Your task to perform on an android device: Go to location settings Image 0: 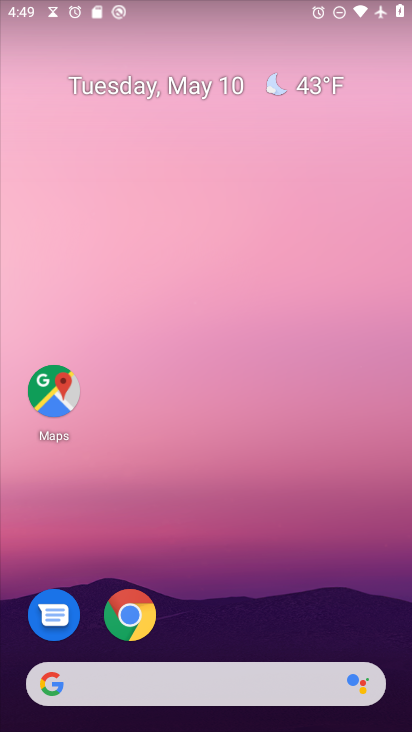
Step 0: drag from (257, 506) to (241, 12)
Your task to perform on an android device: Go to location settings Image 1: 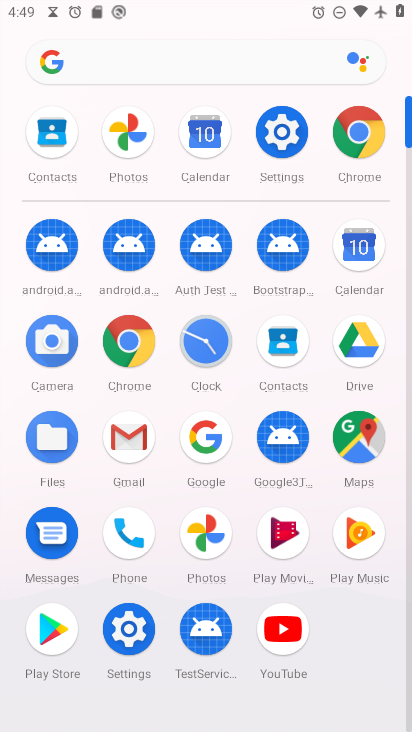
Step 1: drag from (16, 473) to (15, 161)
Your task to perform on an android device: Go to location settings Image 2: 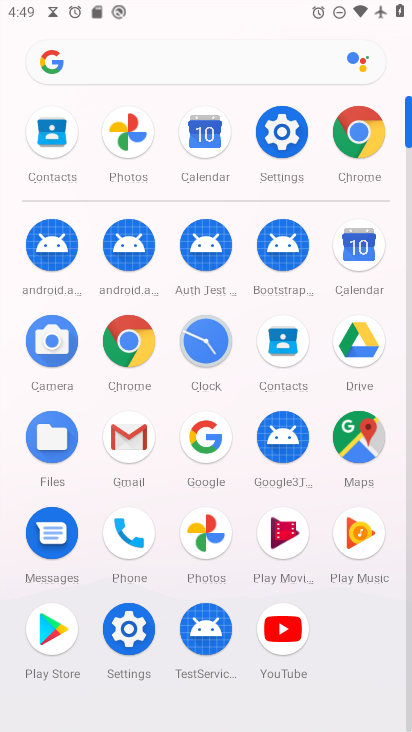
Step 2: click (127, 626)
Your task to perform on an android device: Go to location settings Image 3: 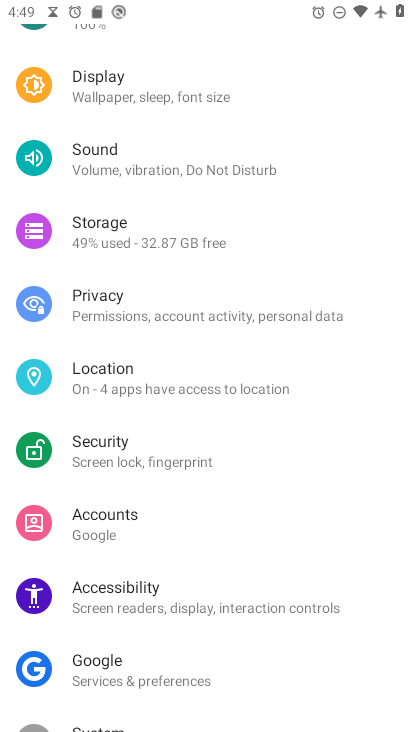
Step 3: click (182, 384)
Your task to perform on an android device: Go to location settings Image 4: 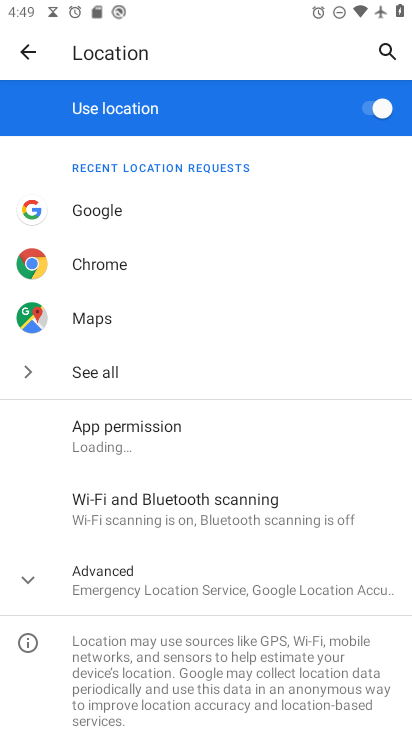
Step 4: drag from (237, 529) to (269, 285)
Your task to perform on an android device: Go to location settings Image 5: 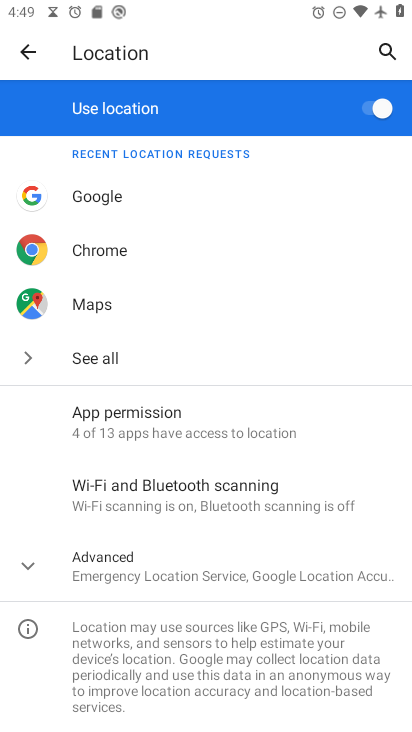
Step 5: click (42, 559)
Your task to perform on an android device: Go to location settings Image 6: 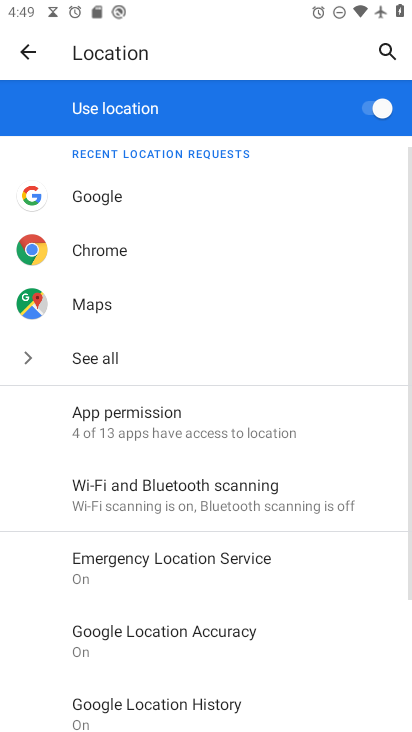
Step 6: task complete